Your task to perform on an android device: Open Google Image 0: 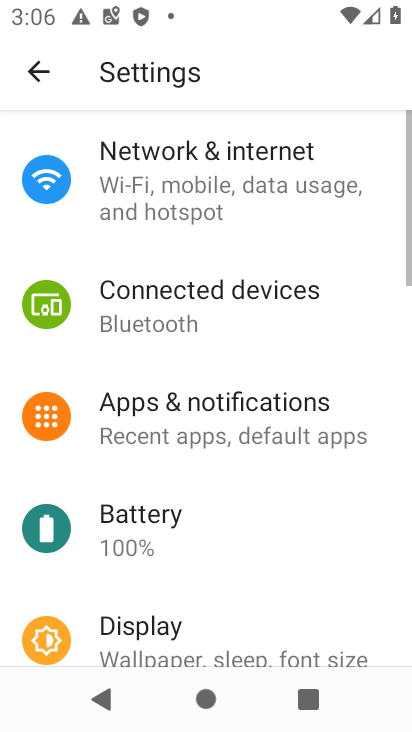
Step 0: drag from (355, 524) to (407, 245)
Your task to perform on an android device: Open Google Image 1: 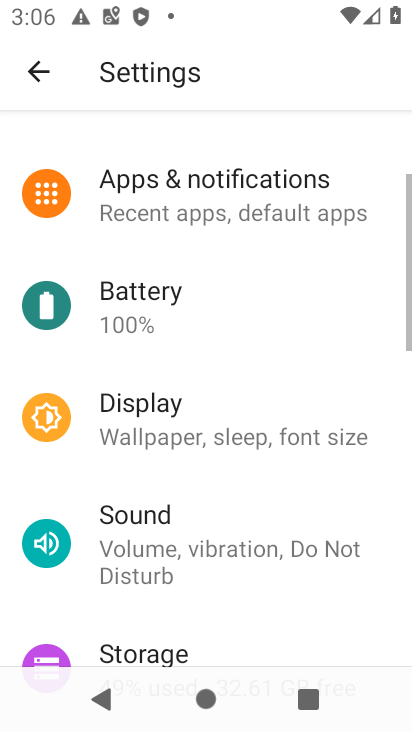
Step 1: press home button
Your task to perform on an android device: Open Google Image 2: 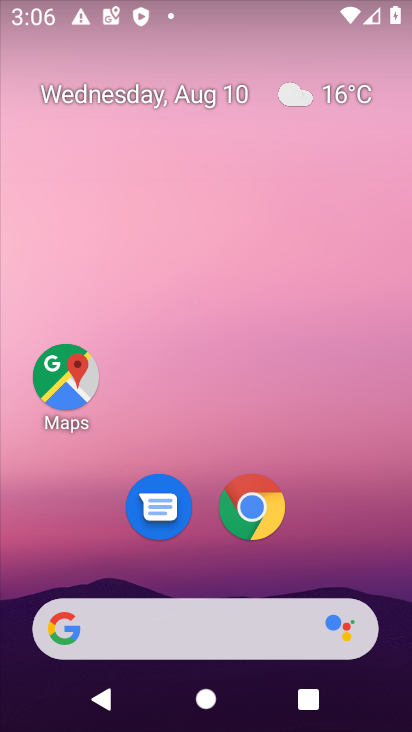
Step 2: drag from (344, 523) to (305, 3)
Your task to perform on an android device: Open Google Image 3: 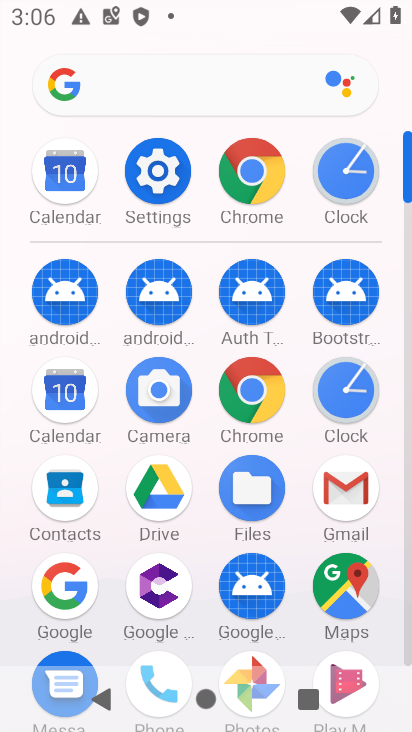
Step 3: click (65, 583)
Your task to perform on an android device: Open Google Image 4: 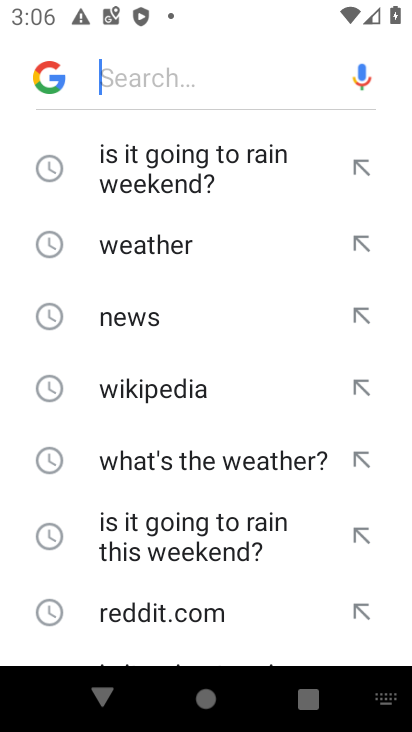
Step 4: task complete